Your task to perform on an android device: open device folders in google photos Image 0: 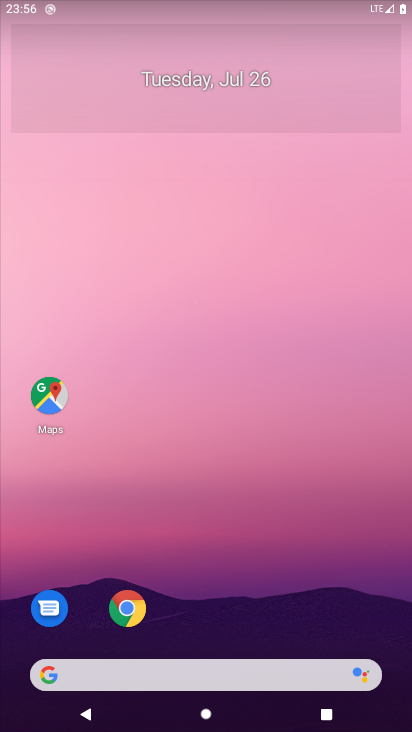
Step 0: drag from (308, 532) to (281, 222)
Your task to perform on an android device: open device folders in google photos Image 1: 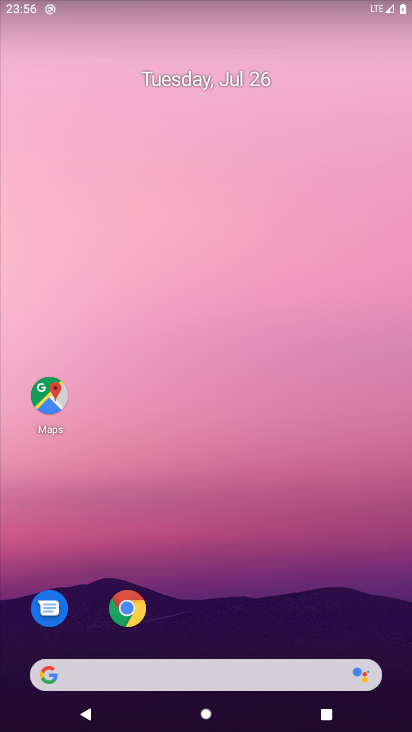
Step 1: drag from (289, 560) to (402, 12)
Your task to perform on an android device: open device folders in google photos Image 2: 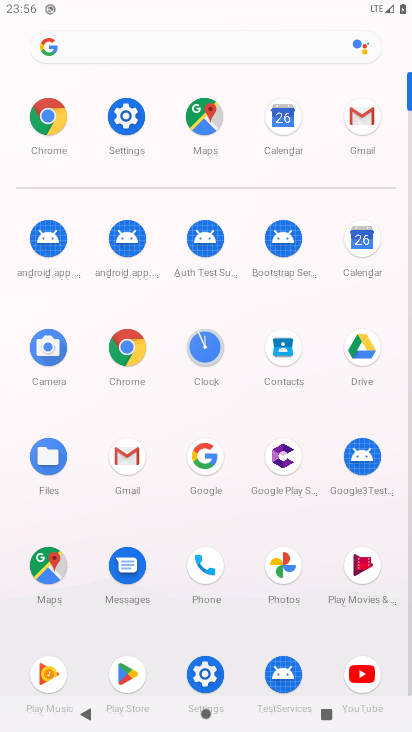
Step 2: click (275, 556)
Your task to perform on an android device: open device folders in google photos Image 3: 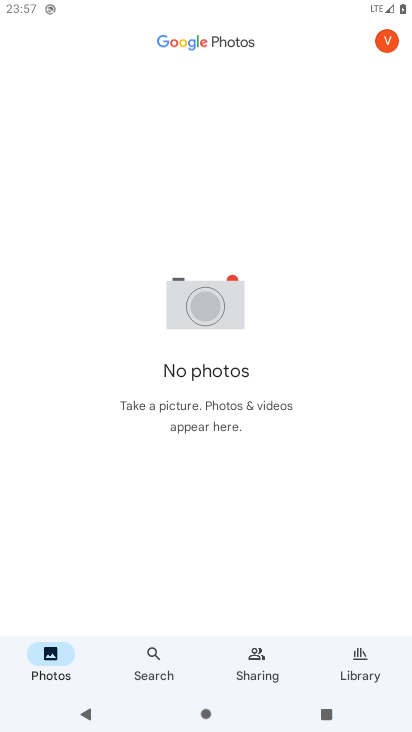
Step 3: click (150, 648)
Your task to perform on an android device: open device folders in google photos Image 4: 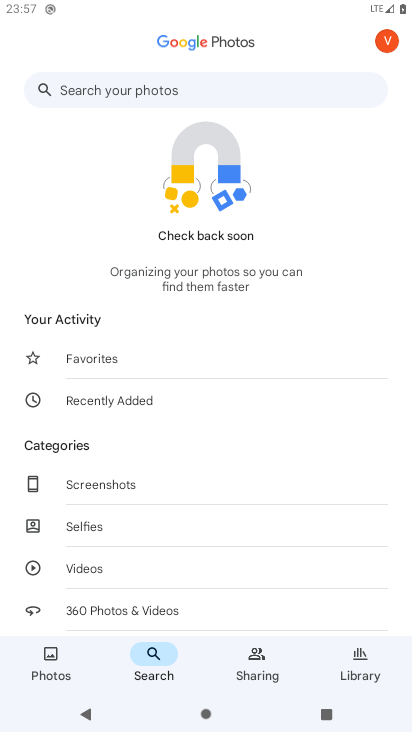
Step 4: click (132, 94)
Your task to perform on an android device: open device folders in google photos Image 5: 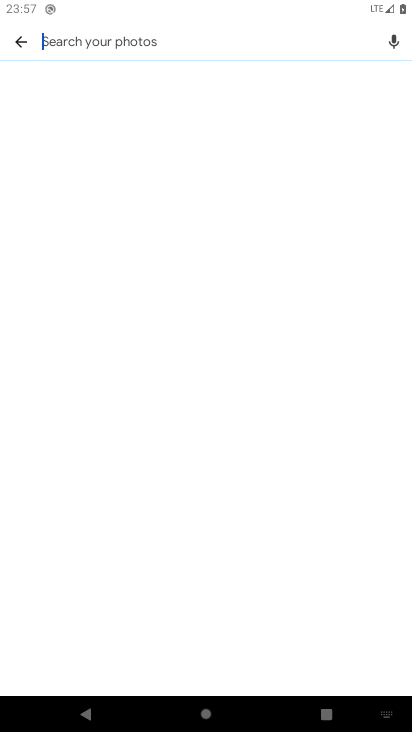
Step 5: type "device folders "
Your task to perform on an android device: open device folders in google photos Image 6: 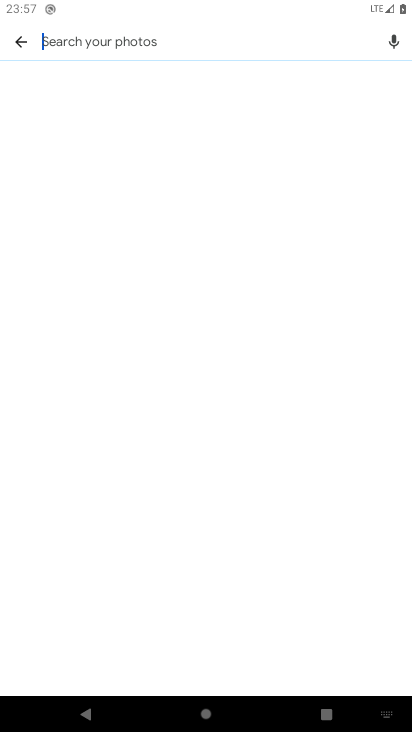
Step 6: click (71, 43)
Your task to perform on an android device: open device folders in google photos Image 7: 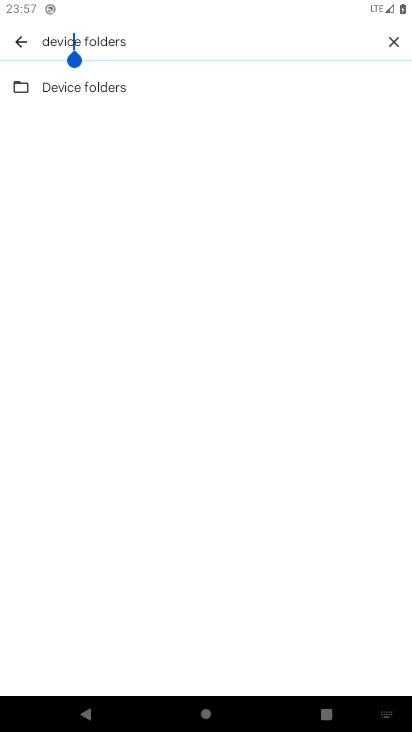
Step 7: click (87, 89)
Your task to perform on an android device: open device folders in google photos Image 8: 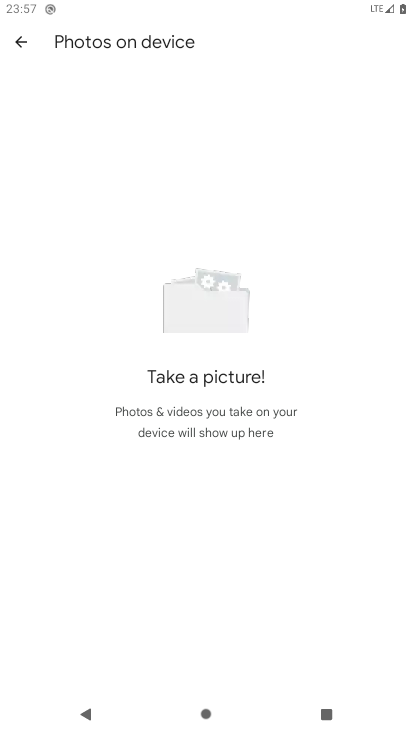
Step 8: task complete